Your task to perform on an android device: turn off notifications settings in the gmail app Image 0: 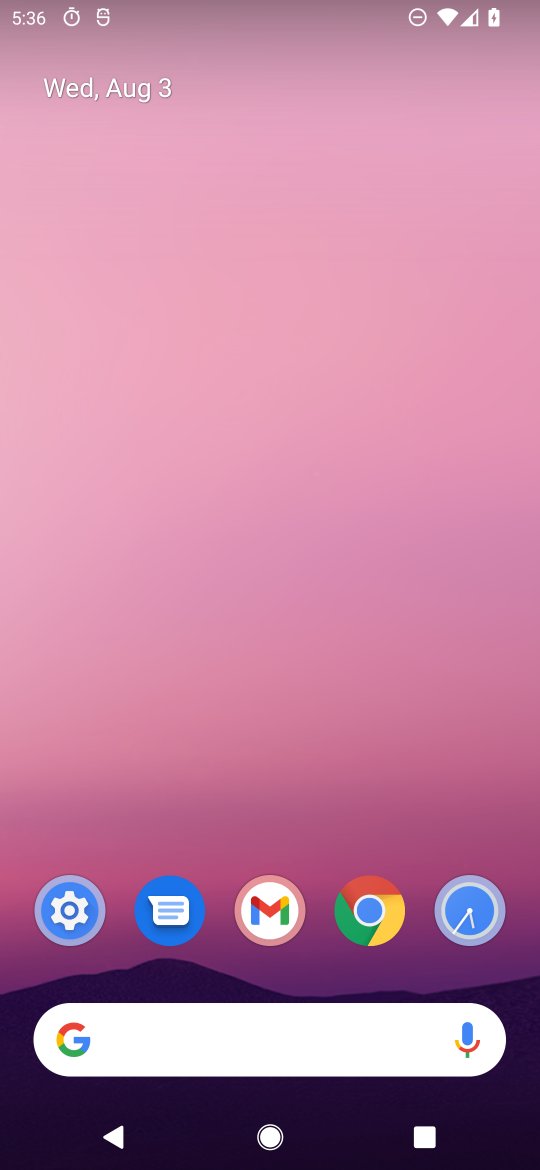
Step 0: click (270, 952)
Your task to perform on an android device: turn off notifications settings in the gmail app Image 1: 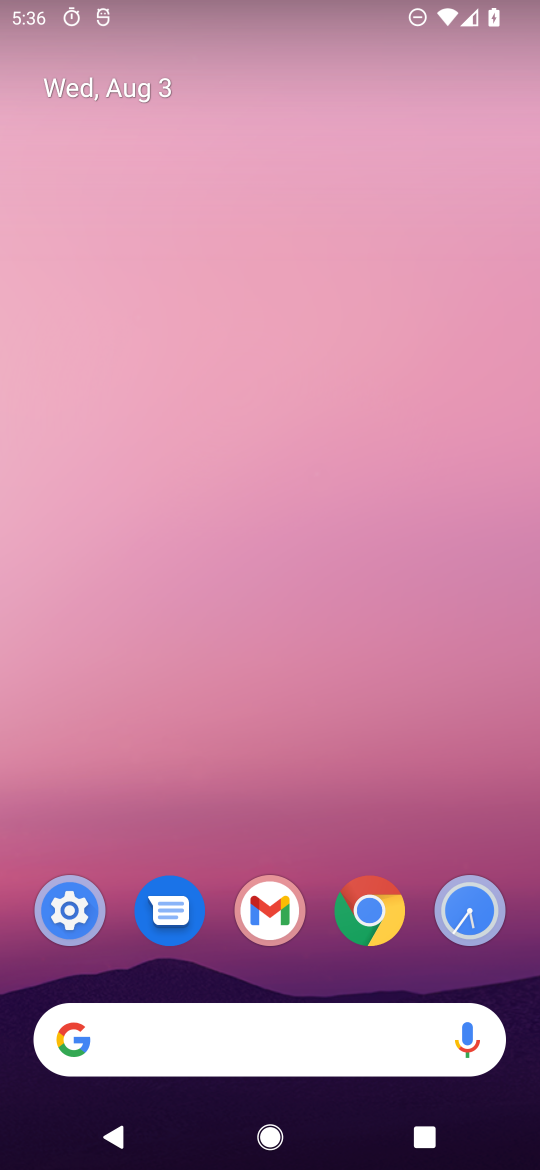
Step 1: click (271, 914)
Your task to perform on an android device: turn off notifications settings in the gmail app Image 2: 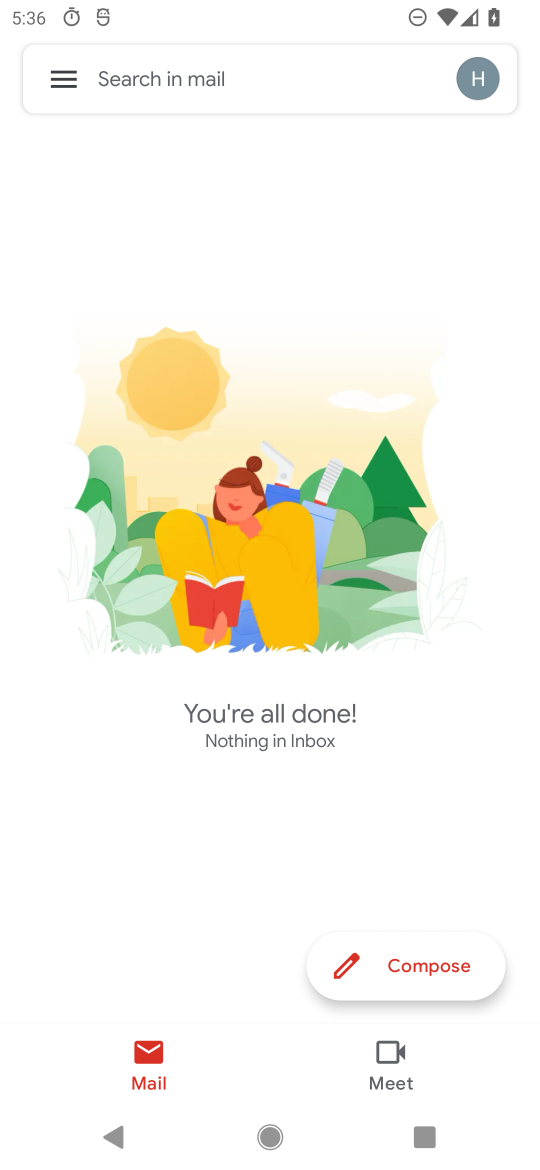
Step 2: click (93, 101)
Your task to perform on an android device: turn off notifications settings in the gmail app Image 3: 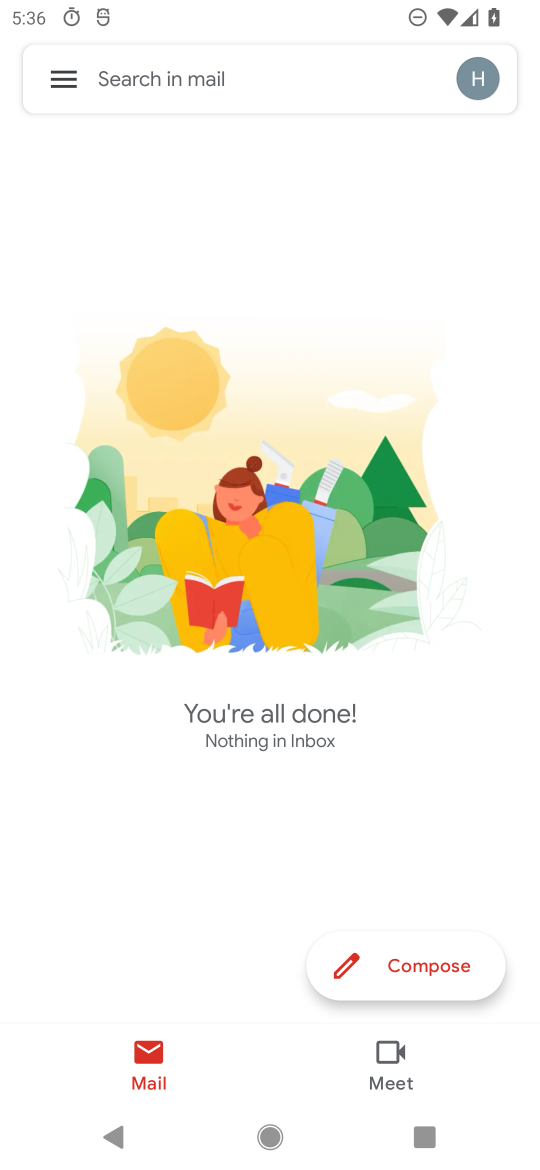
Step 3: click (52, 66)
Your task to perform on an android device: turn off notifications settings in the gmail app Image 4: 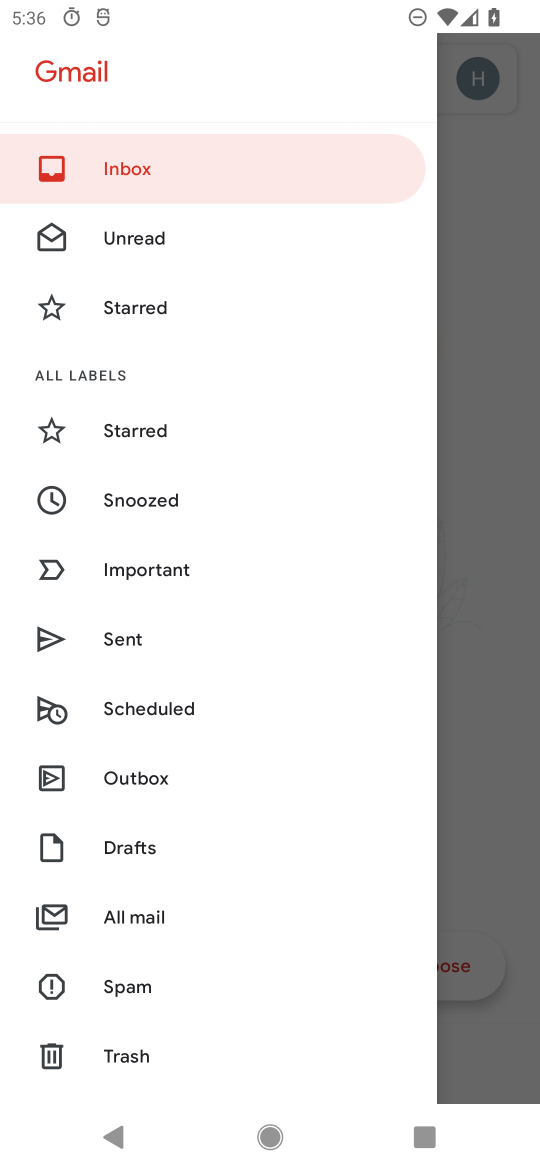
Step 4: drag from (240, 1015) to (293, 593)
Your task to perform on an android device: turn off notifications settings in the gmail app Image 5: 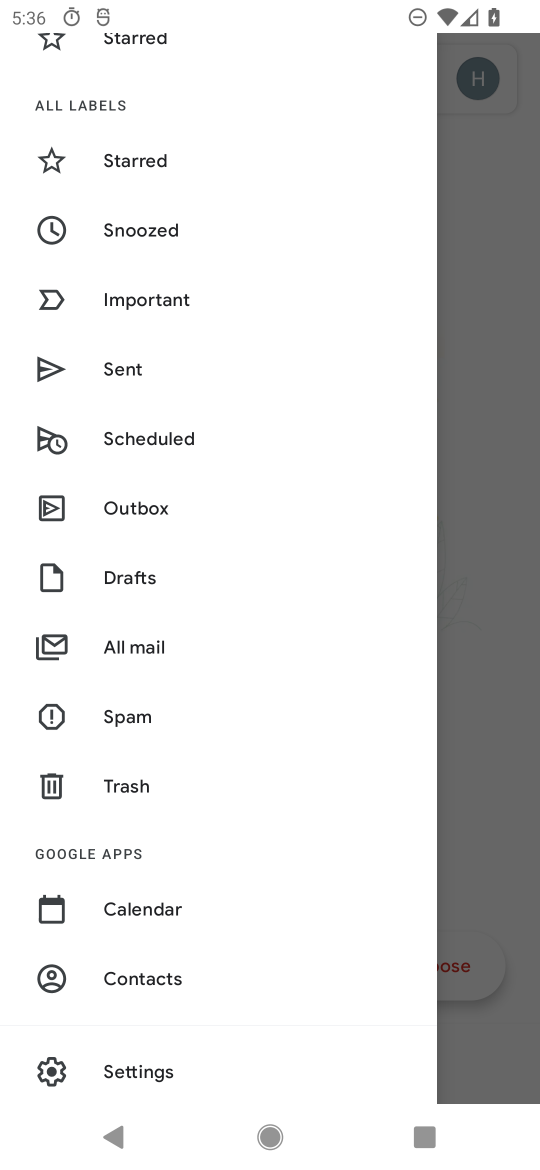
Step 5: click (127, 1073)
Your task to perform on an android device: turn off notifications settings in the gmail app Image 6: 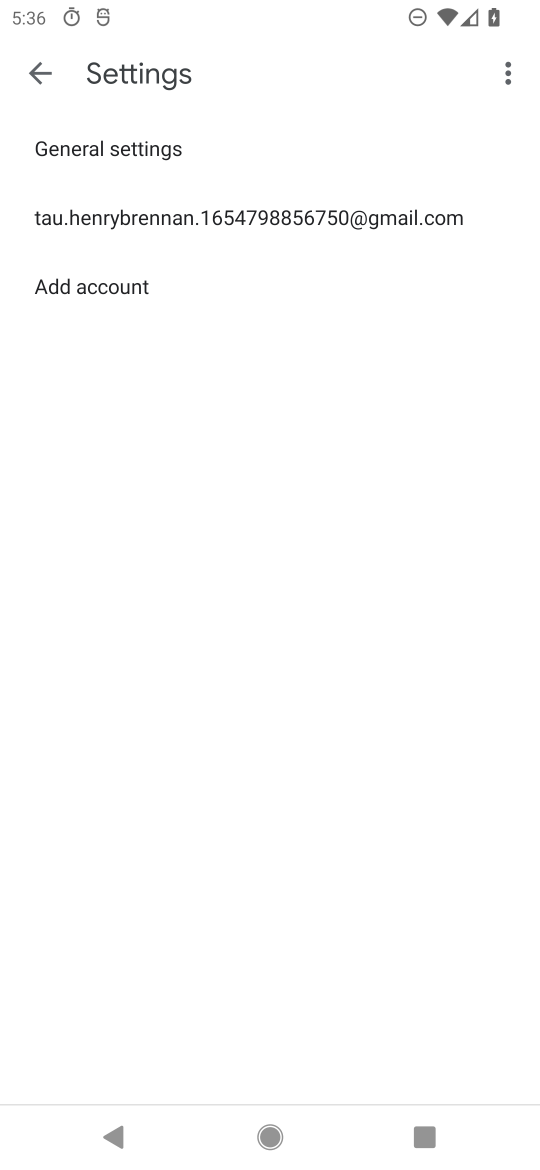
Step 6: click (103, 161)
Your task to perform on an android device: turn off notifications settings in the gmail app Image 7: 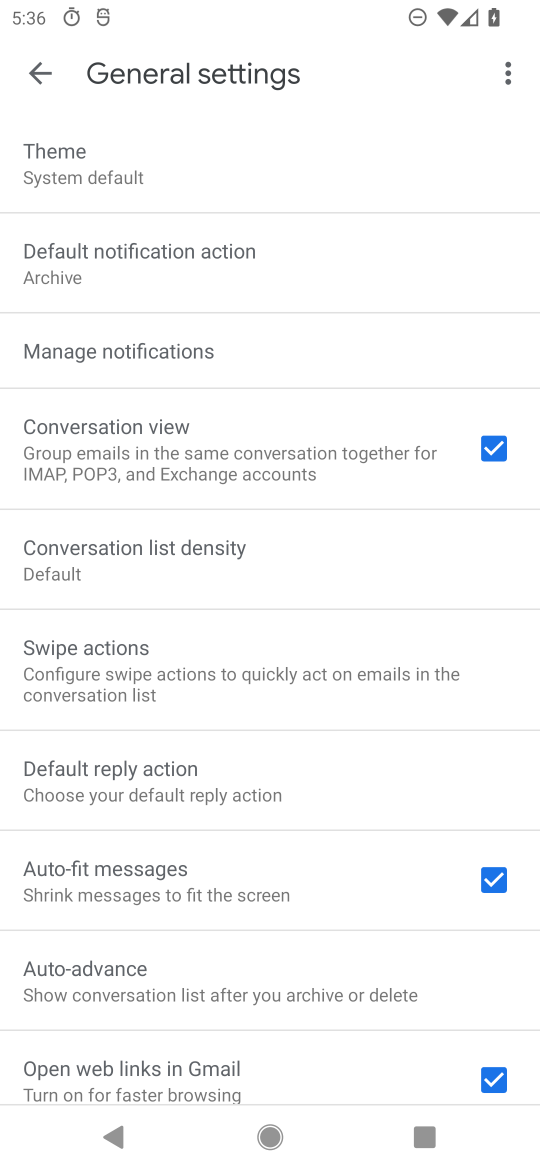
Step 7: click (206, 347)
Your task to perform on an android device: turn off notifications settings in the gmail app Image 8: 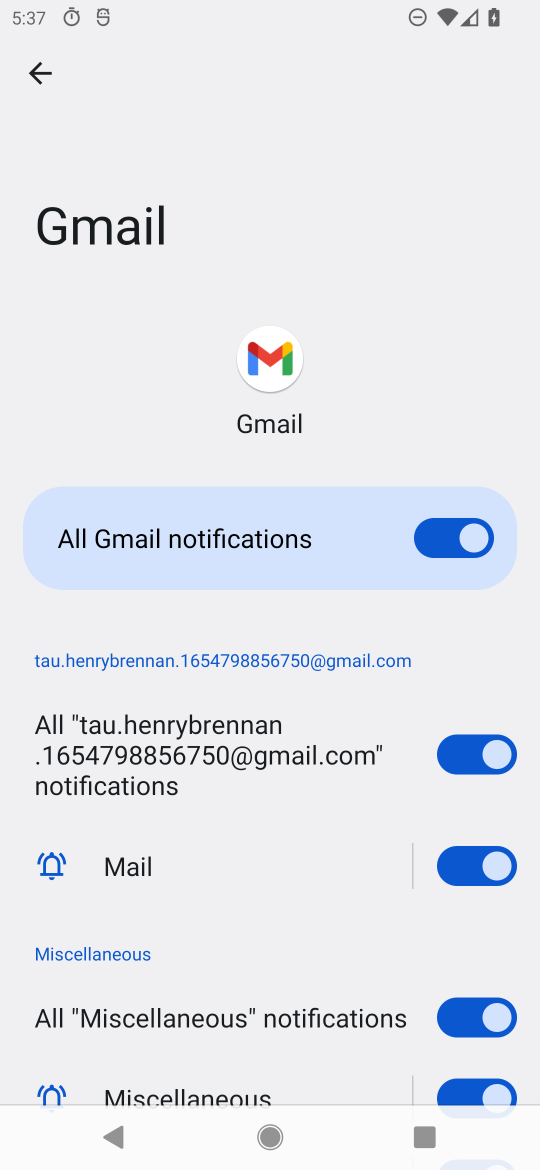
Step 8: task complete